Your task to perform on an android device: Add "razer blade" to the cart on walmart, then select checkout. Image 0: 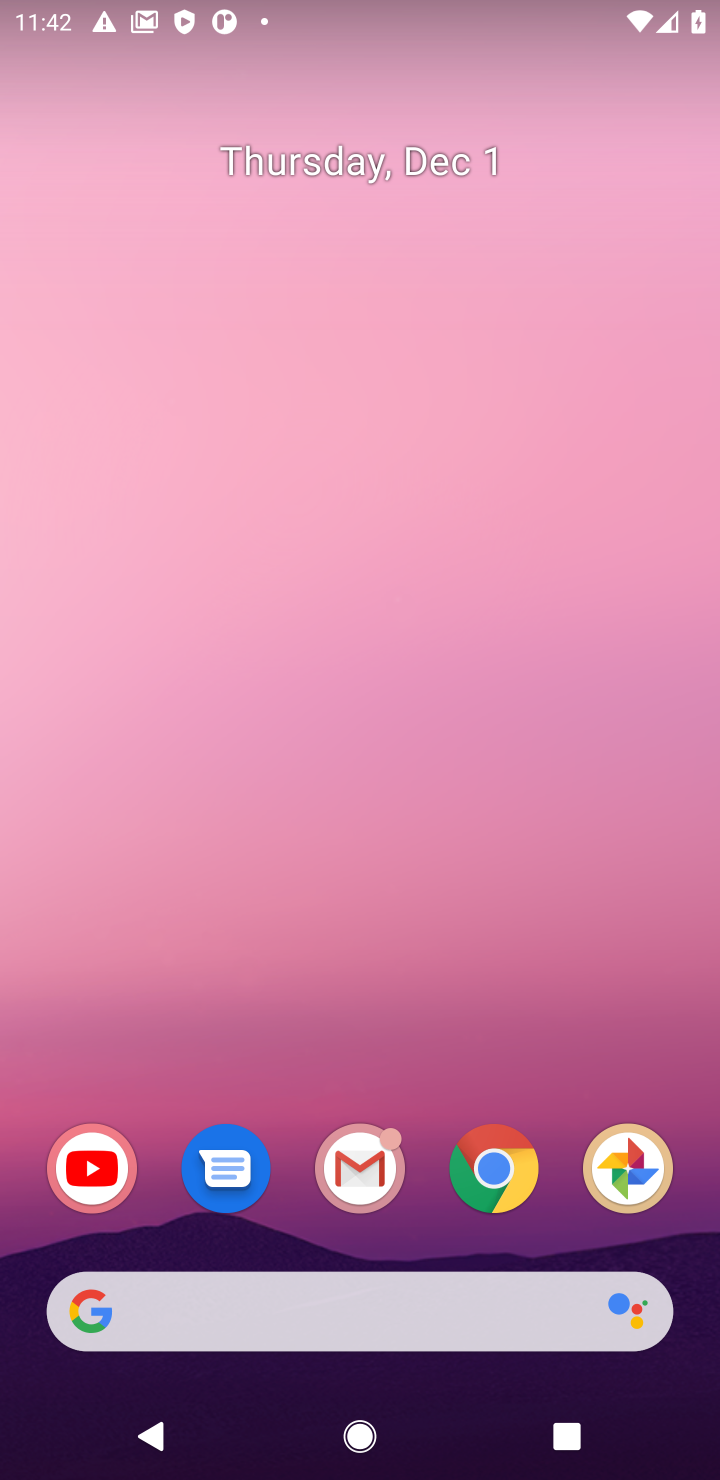
Step 0: click (477, 1170)
Your task to perform on an android device: Add "razer blade" to the cart on walmart, then select checkout. Image 1: 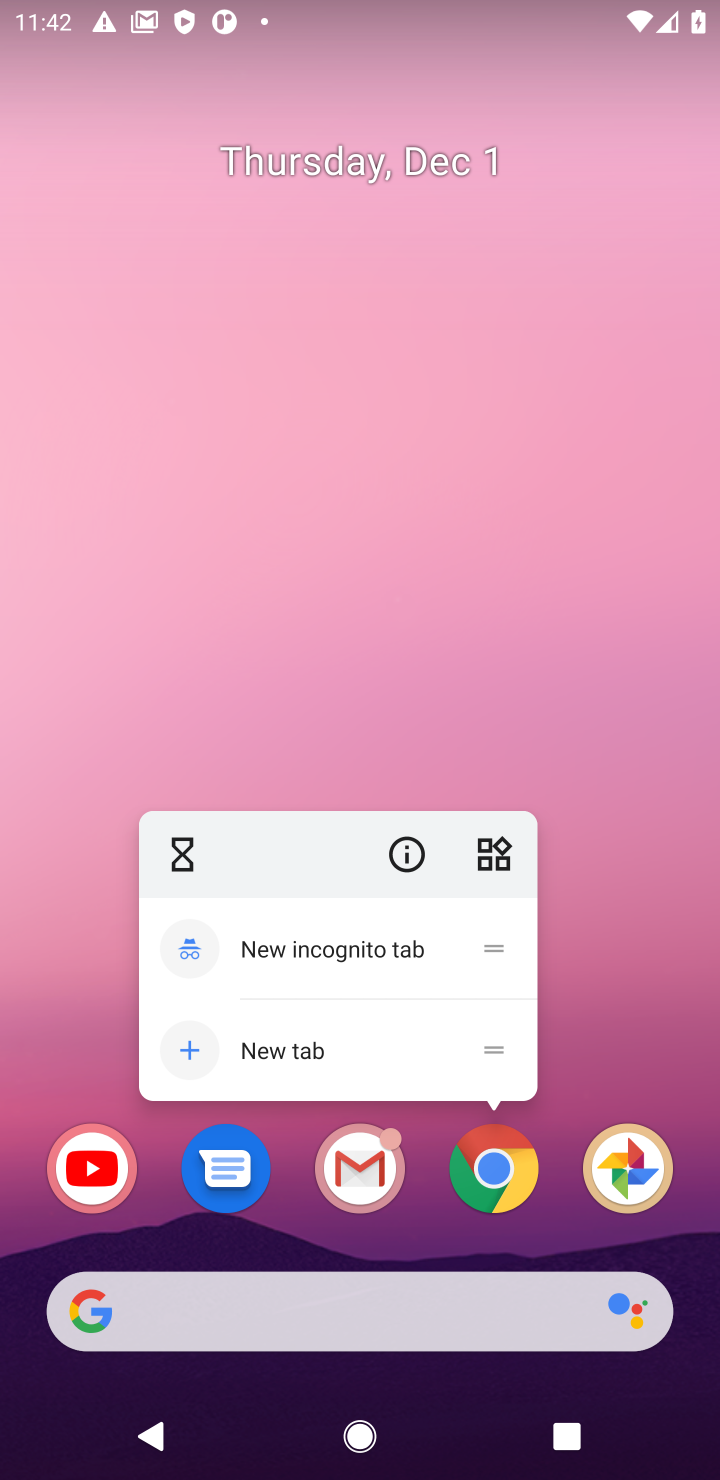
Step 1: click (477, 1170)
Your task to perform on an android device: Add "razer blade" to the cart on walmart, then select checkout. Image 2: 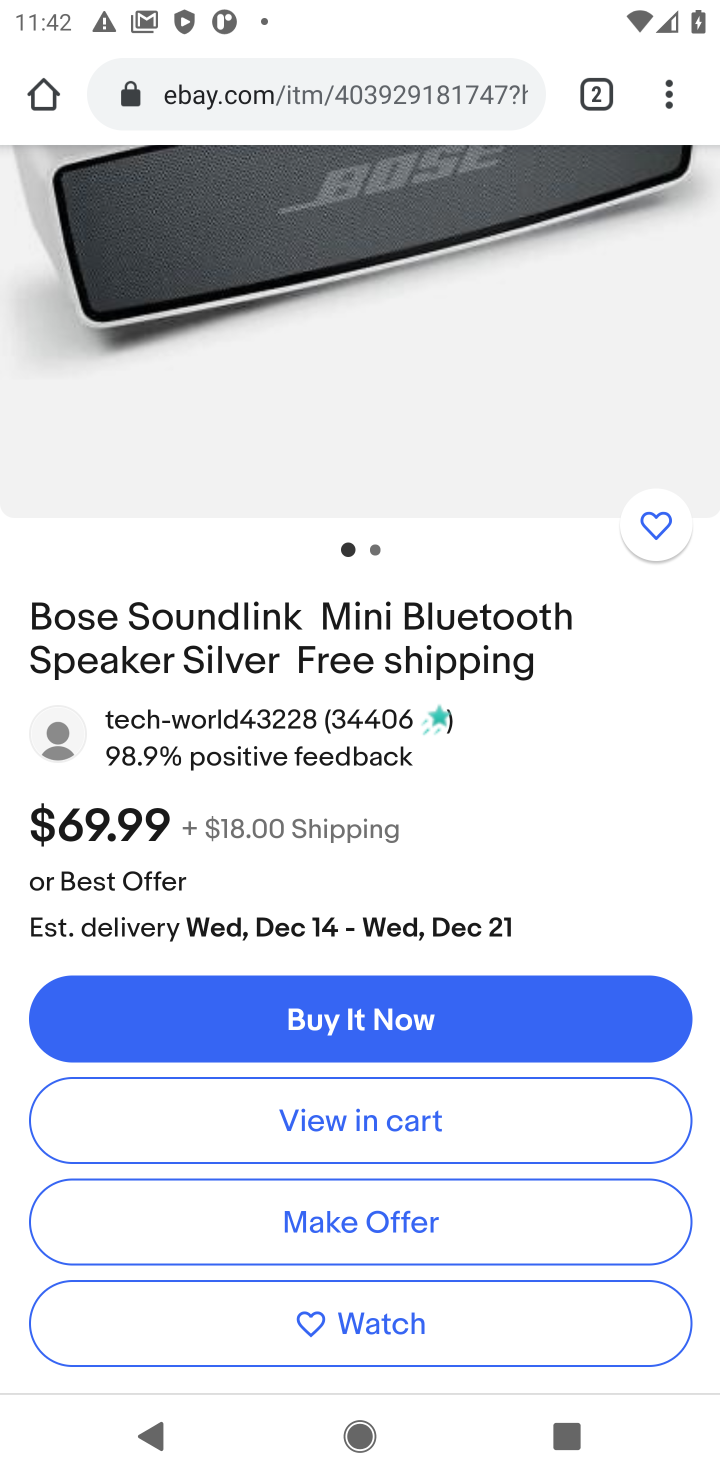
Step 2: click (322, 101)
Your task to perform on an android device: Add "razer blade" to the cart on walmart, then select checkout. Image 3: 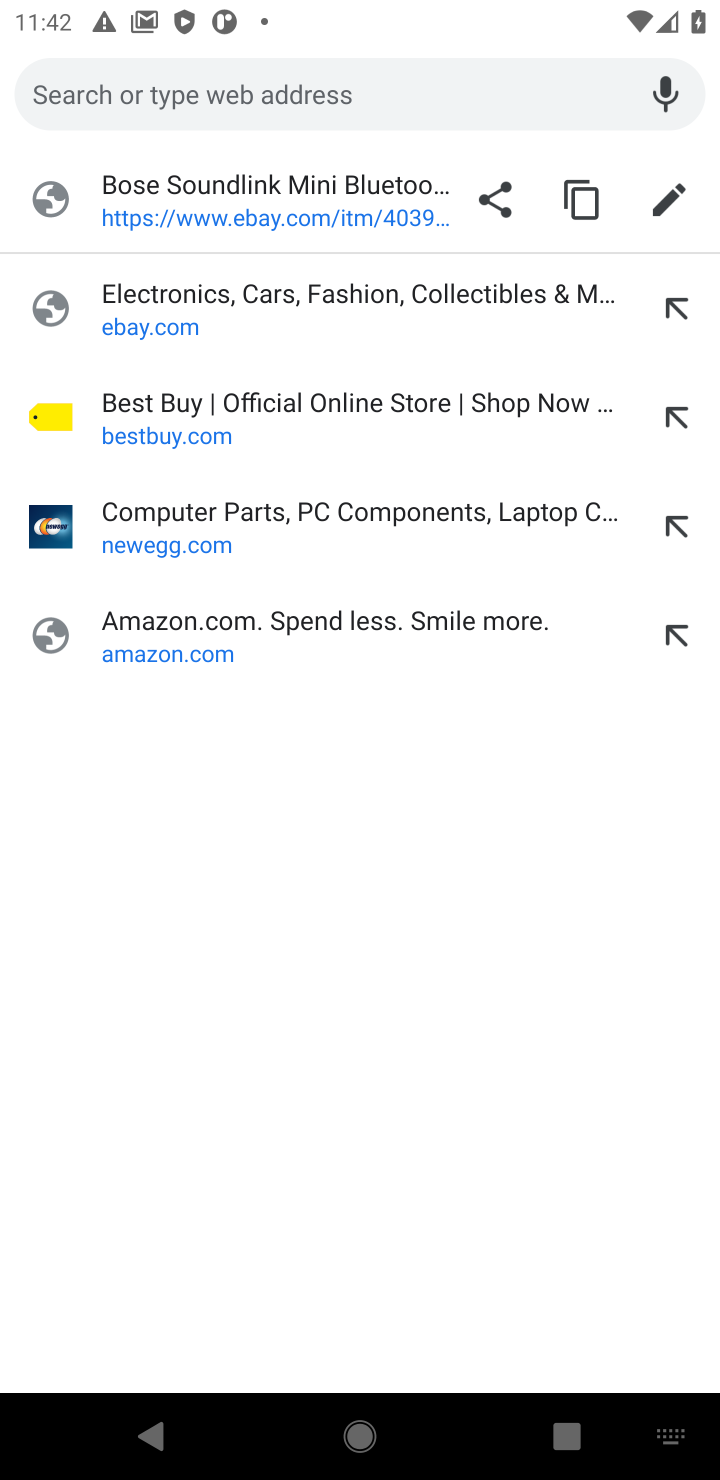
Step 3: type "walmart.com"
Your task to perform on an android device: Add "razer blade" to the cart on walmart, then select checkout. Image 4: 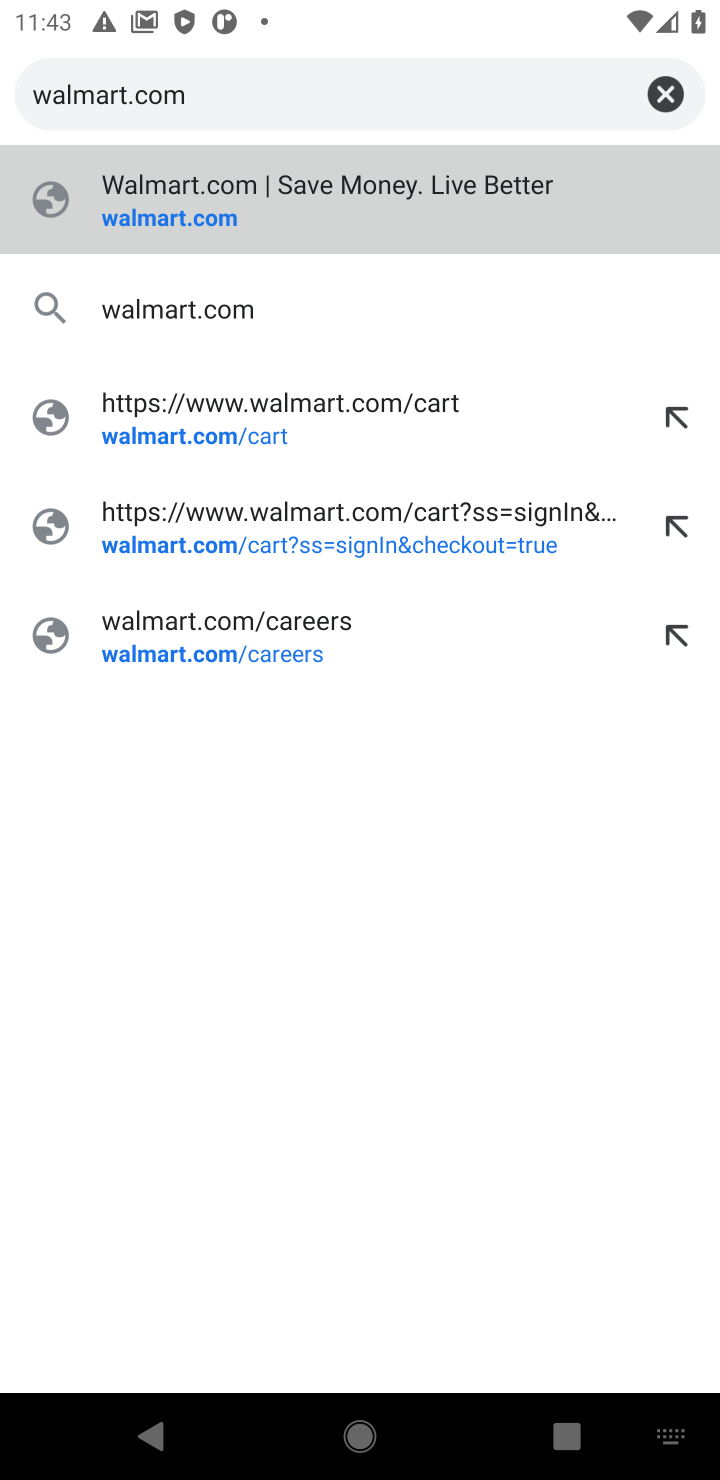
Step 4: click (181, 206)
Your task to perform on an android device: Add "razer blade" to the cart on walmart, then select checkout. Image 5: 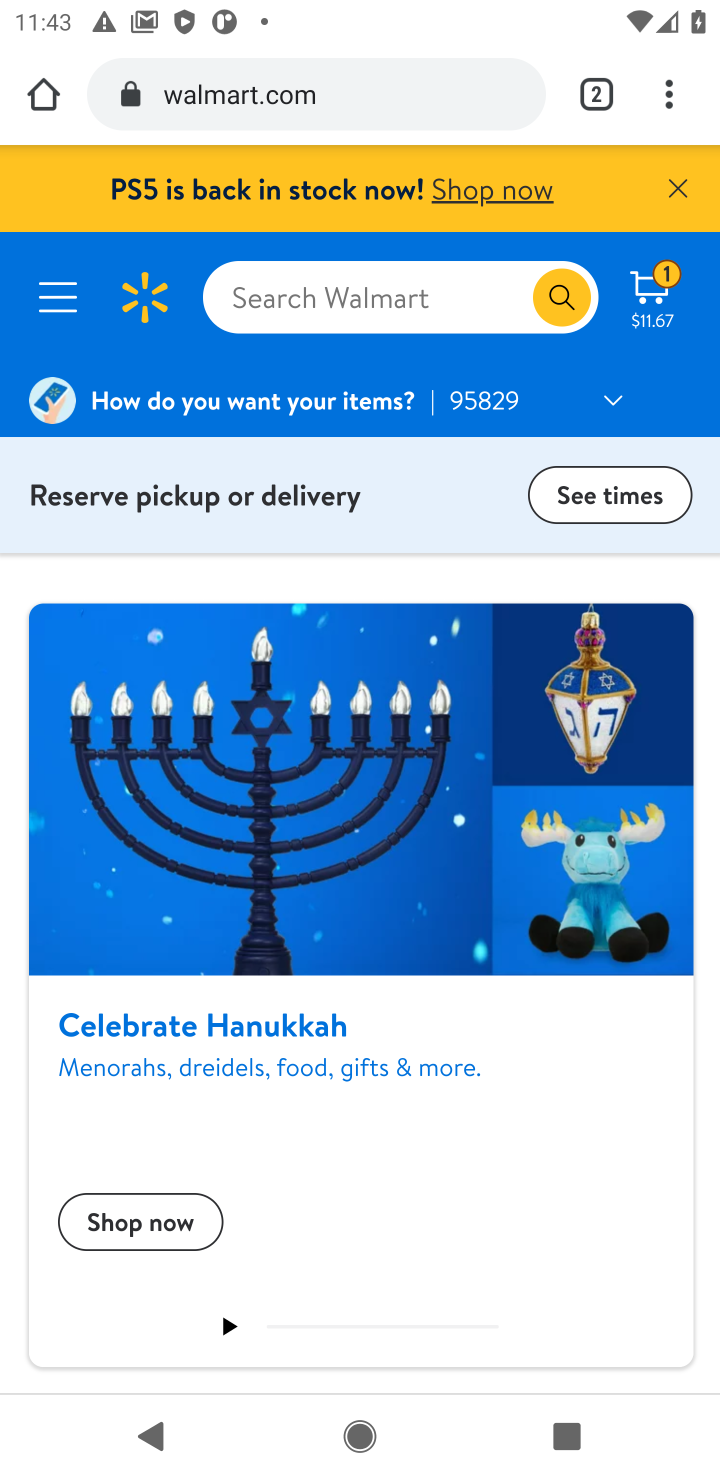
Step 5: click (288, 305)
Your task to perform on an android device: Add "razer blade" to the cart on walmart, then select checkout. Image 6: 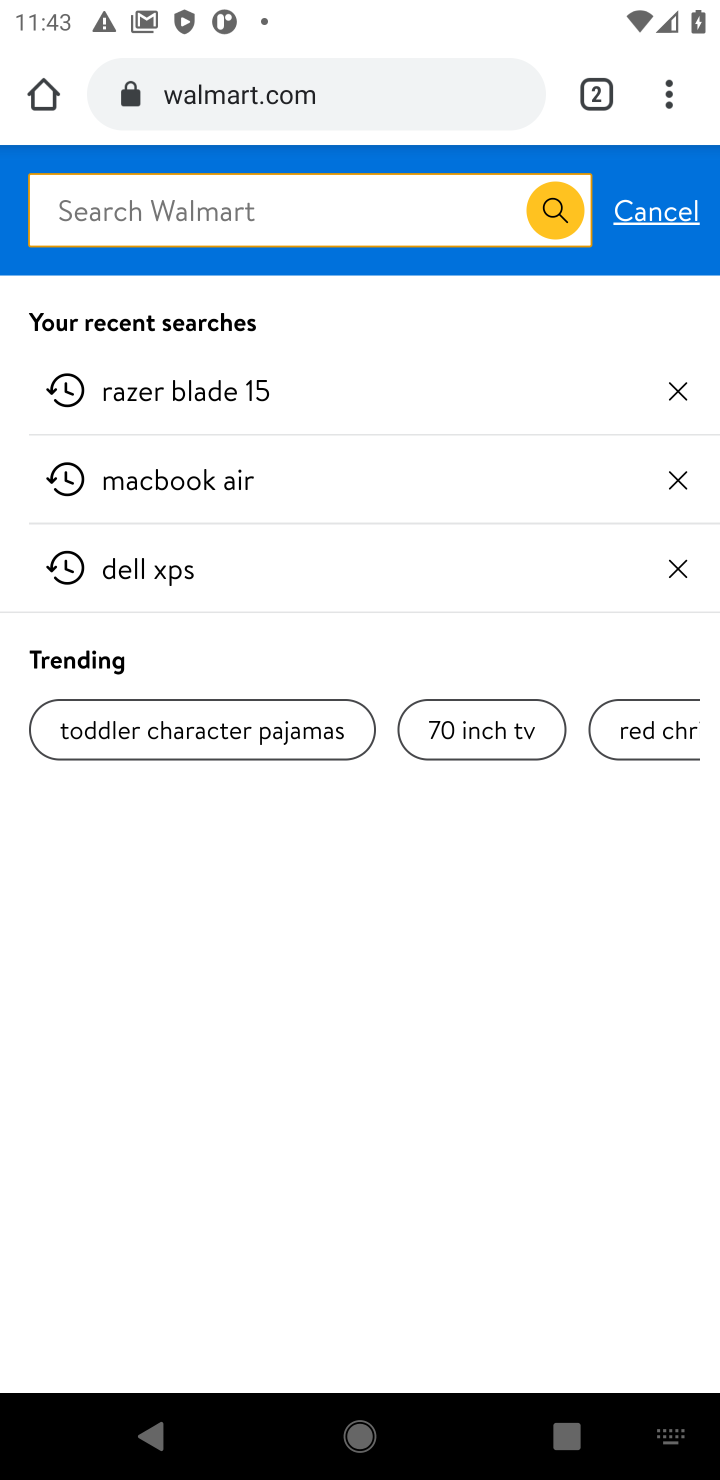
Step 6: type "razer blade"
Your task to perform on an android device: Add "razer blade" to the cart on walmart, then select checkout. Image 7: 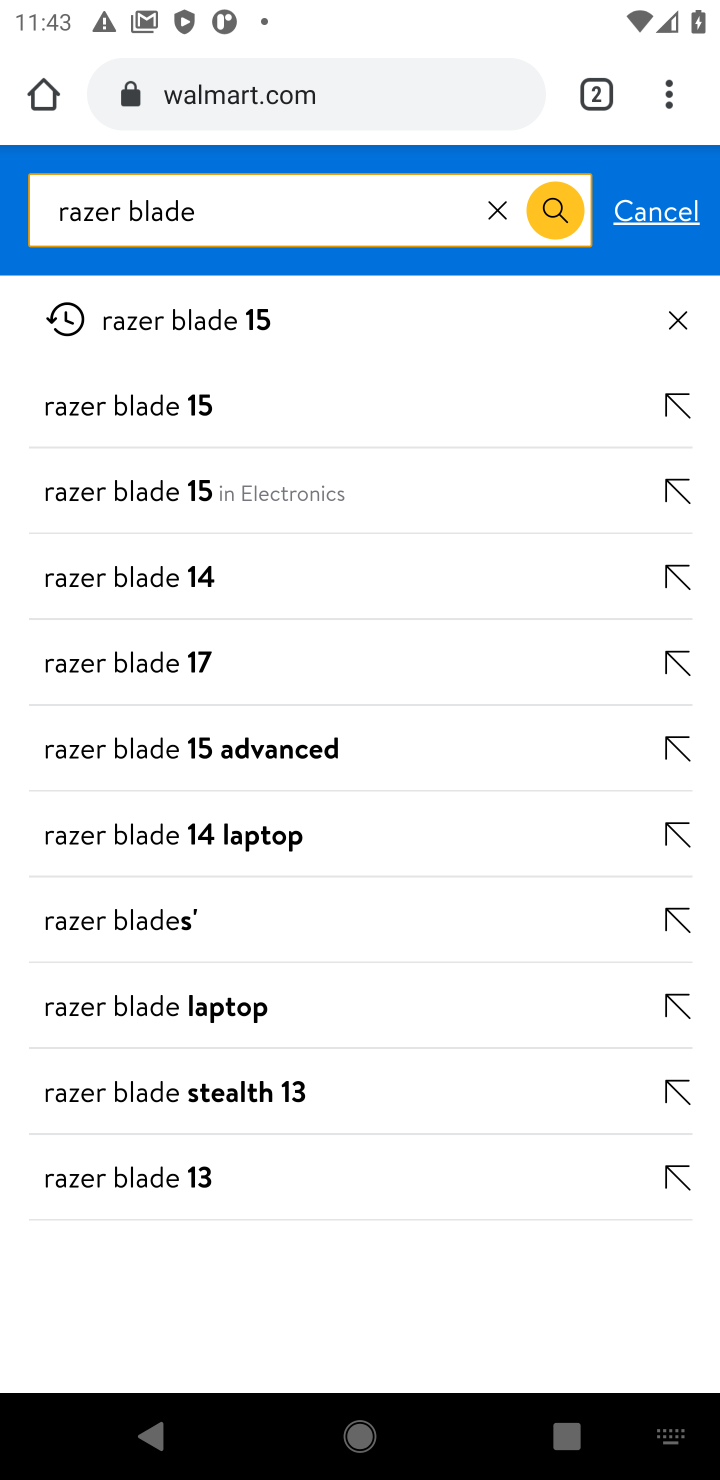
Step 7: click (556, 201)
Your task to perform on an android device: Add "razer blade" to the cart on walmart, then select checkout. Image 8: 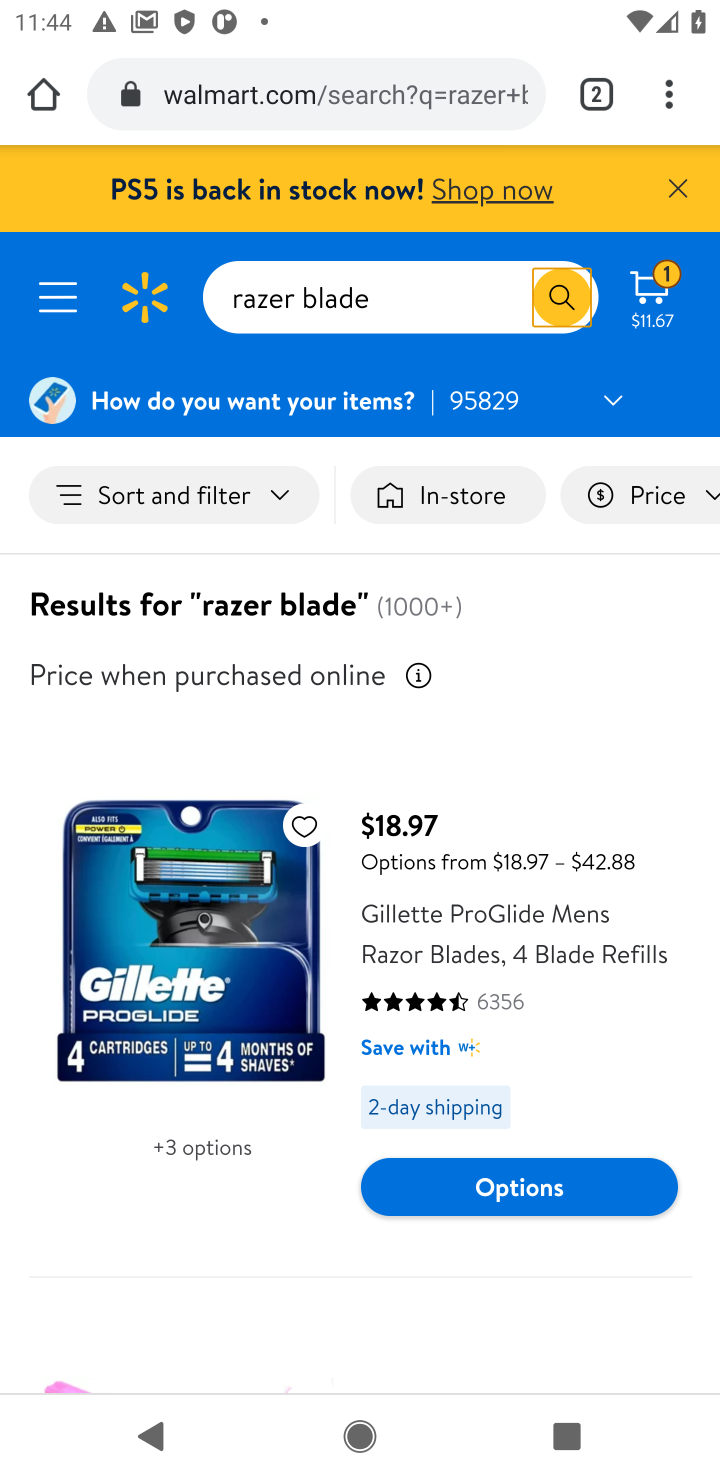
Step 8: task complete